Your task to perform on an android device: What's on my calendar today? Image 0: 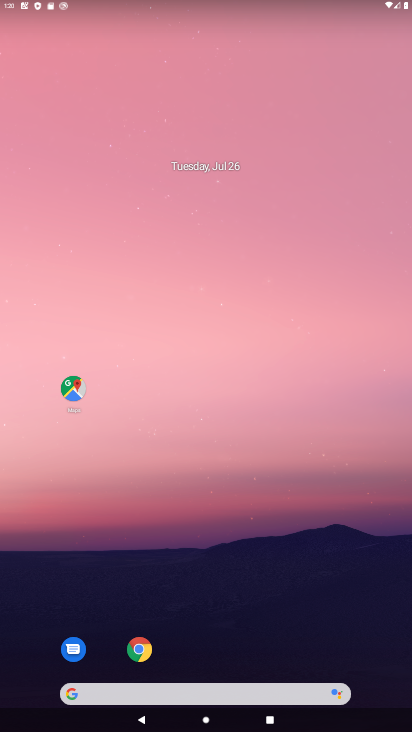
Step 0: drag from (205, 653) to (245, 58)
Your task to perform on an android device: What's on my calendar today? Image 1: 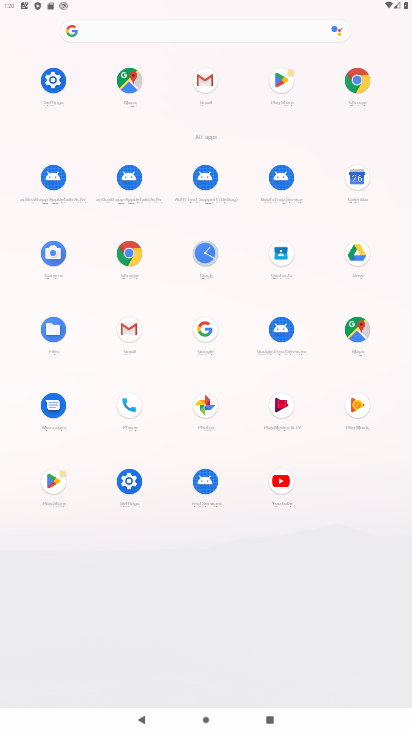
Step 1: click (352, 175)
Your task to perform on an android device: What's on my calendar today? Image 2: 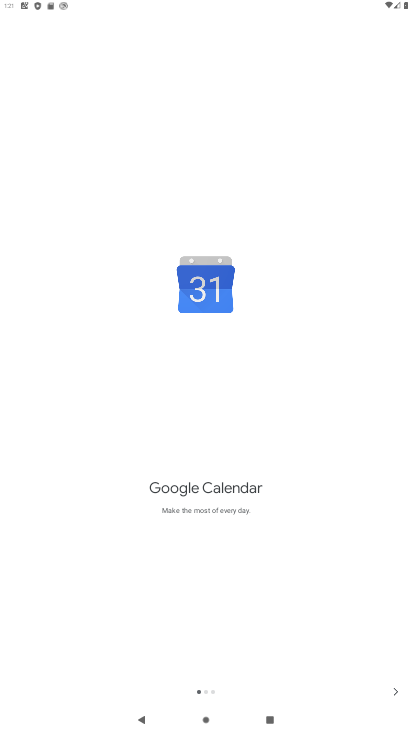
Step 2: click (396, 691)
Your task to perform on an android device: What's on my calendar today? Image 3: 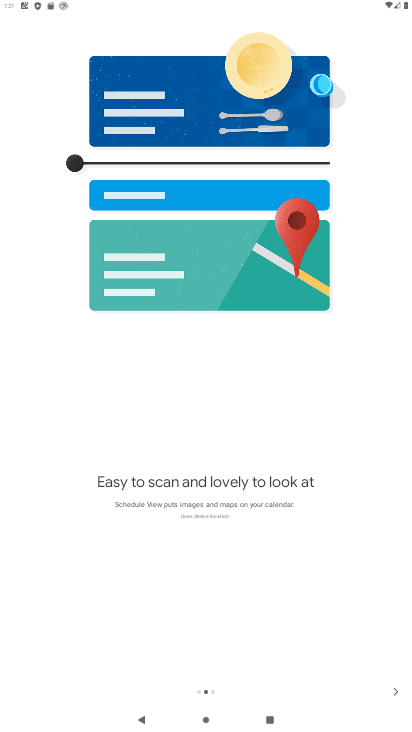
Step 3: click (389, 685)
Your task to perform on an android device: What's on my calendar today? Image 4: 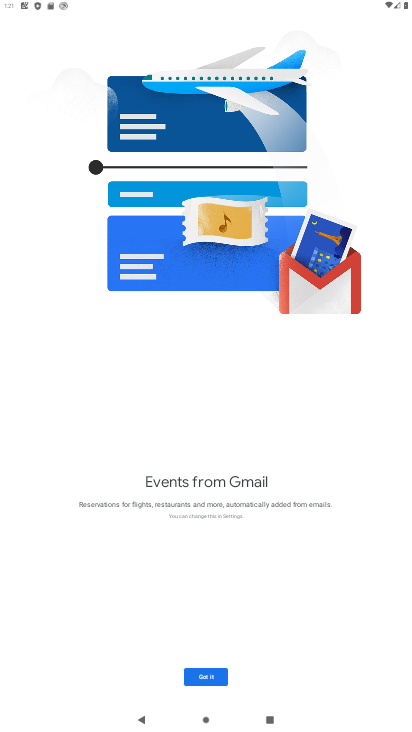
Step 4: click (206, 674)
Your task to perform on an android device: What's on my calendar today? Image 5: 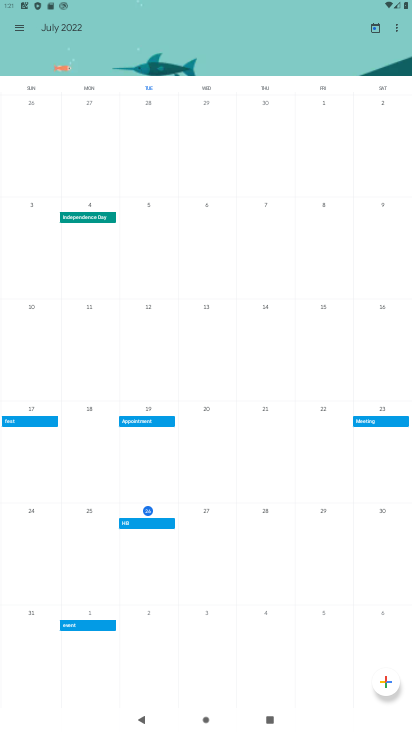
Step 5: click (24, 28)
Your task to perform on an android device: What's on my calendar today? Image 6: 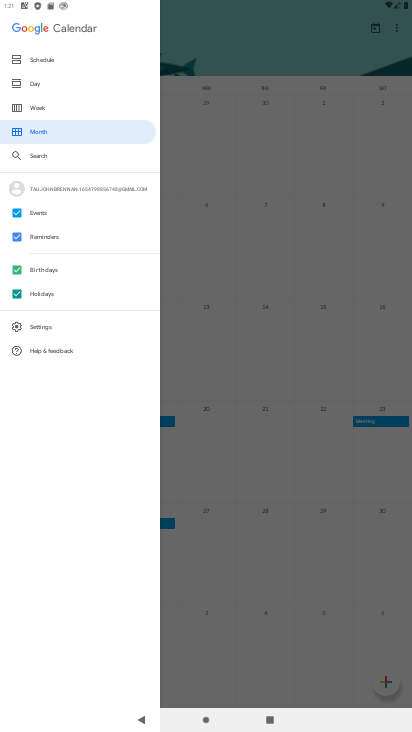
Step 6: click (36, 81)
Your task to perform on an android device: What's on my calendar today? Image 7: 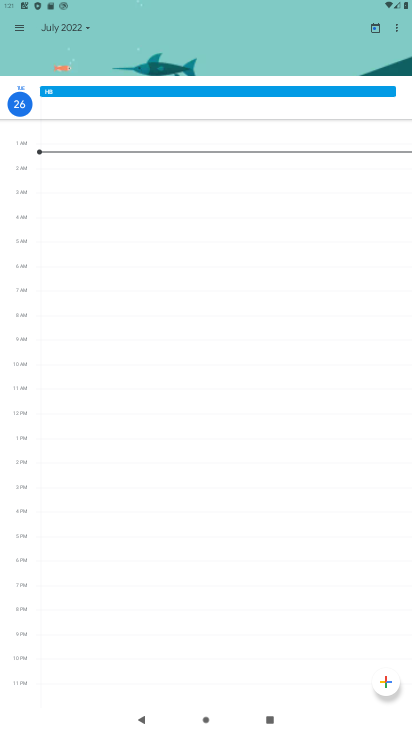
Step 7: task complete